Your task to perform on an android device: toggle improve location accuracy Image 0: 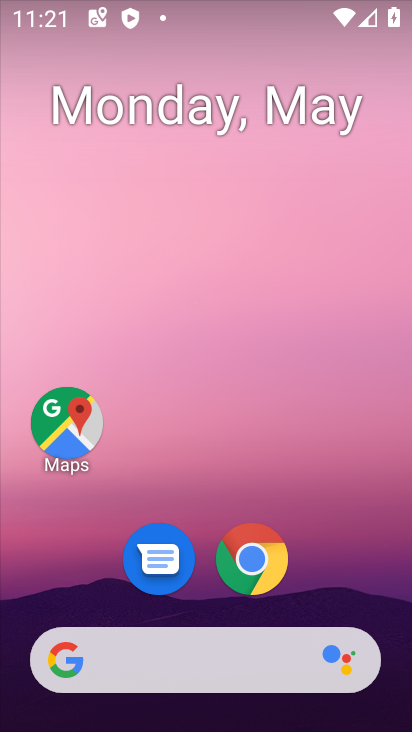
Step 0: drag from (376, 525) to (353, 164)
Your task to perform on an android device: toggle improve location accuracy Image 1: 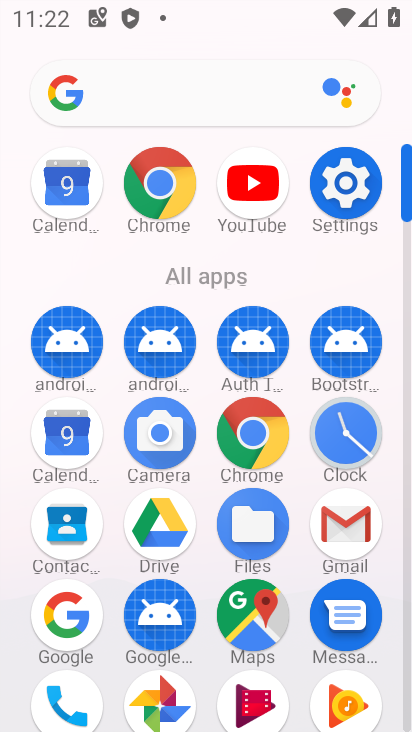
Step 1: click (329, 187)
Your task to perform on an android device: toggle improve location accuracy Image 2: 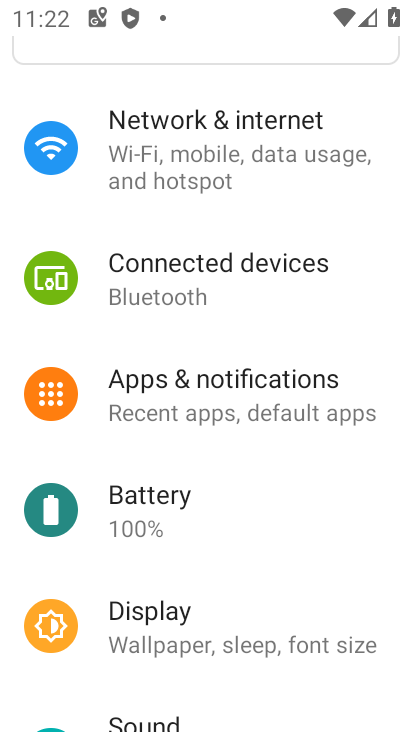
Step 2: drag from (187, 659) to (126, 150)
Your task to perform on an android device: toggle improve location accuracy Image 3: 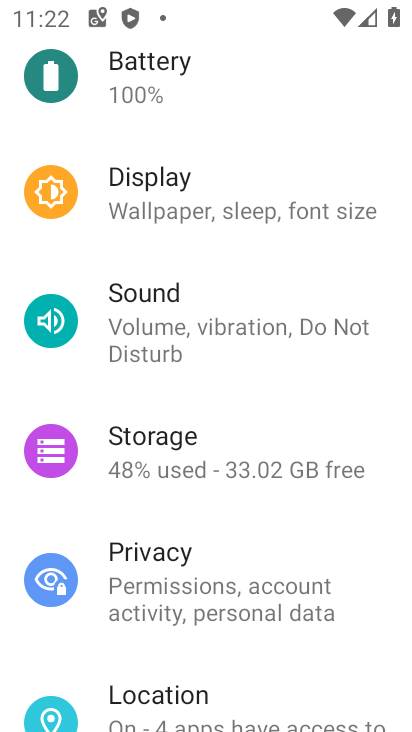
Step 3: drag from (199, 513) to (163, 154)
Your task to perform on an android device: toggle improve location accuracy Image 4: 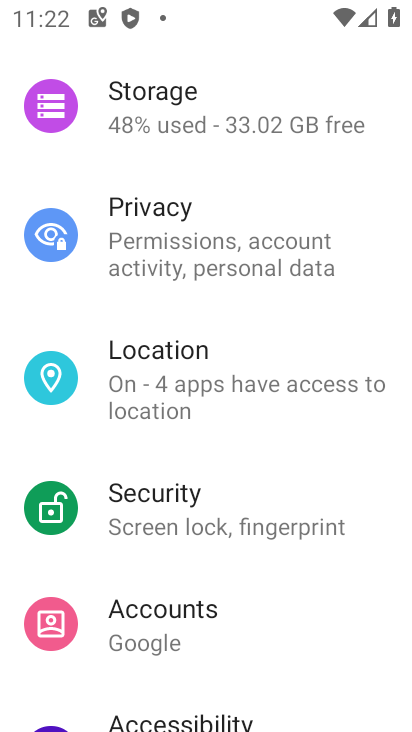
Step 4: click (165, 411)
Your task to perform on an android device: toggle improve location accuracy Image 5: 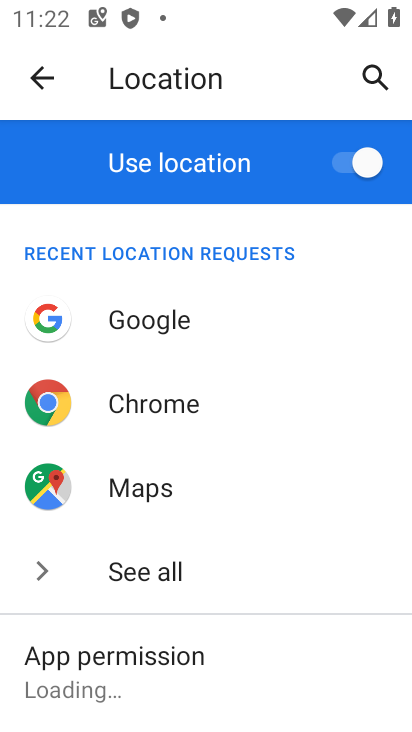
Step 5: drag from (306, 602) to (263, 206)
Your task to perform on an android device: toggle improve location accuracy Image 6: 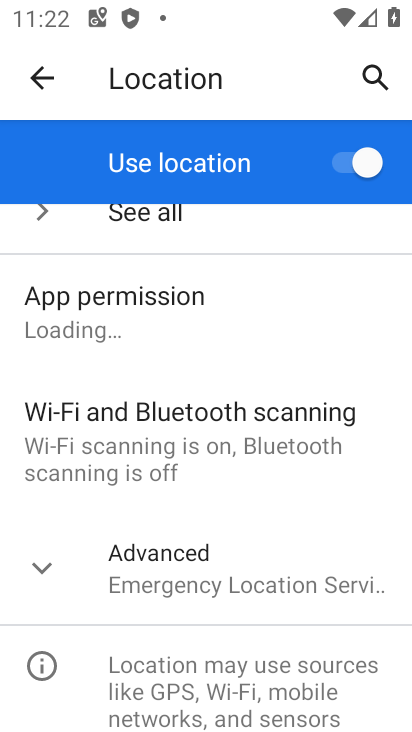
Step 6: click (268, 556)
Your task to perform on an android device: toggle improve location accuracy Image 7: 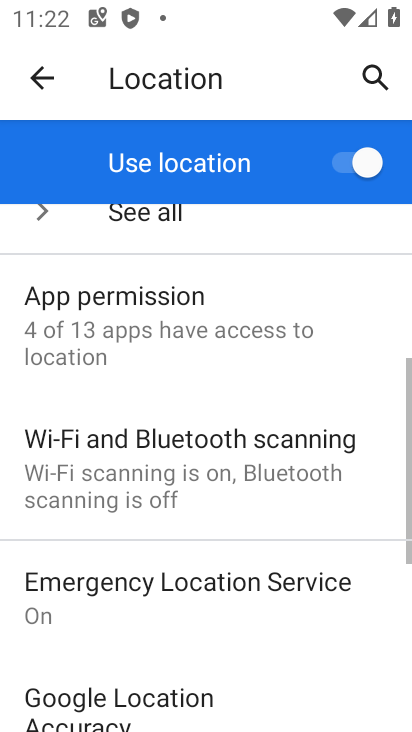
Step 7: drag from (220, 659) to (240, 454)
Your task to perform on an android device: toggle improve location accuracy Image 8: 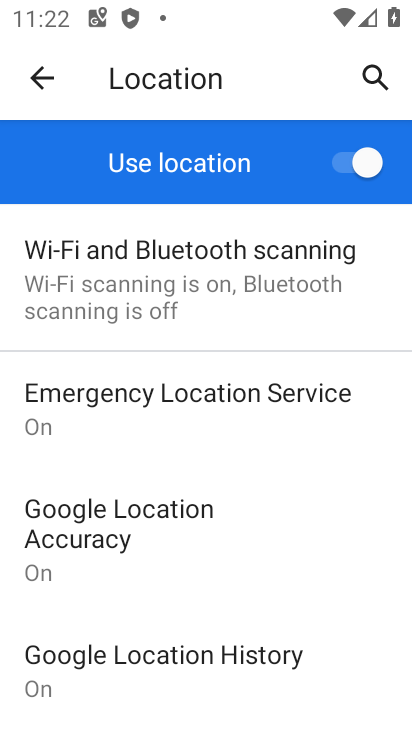
Step 8: click (219, 568)
Your task to perform on an android device: toggle improve location accuracy Image 9: 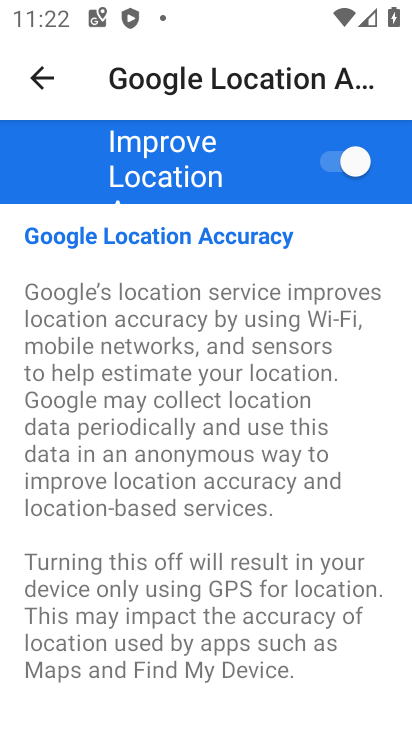
Step 9: click (309, 186)
Your task to perform on an android device: toggle improve location accuracy Image 10: 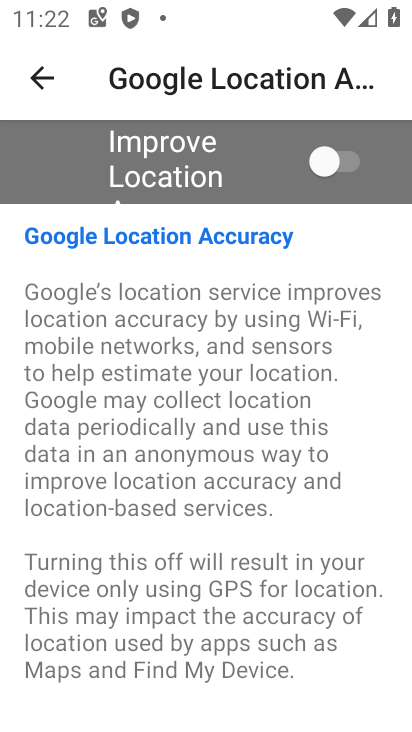
Step 10: task complete